Your task to perform on an android device: Go to Yahoo.com Image 0: 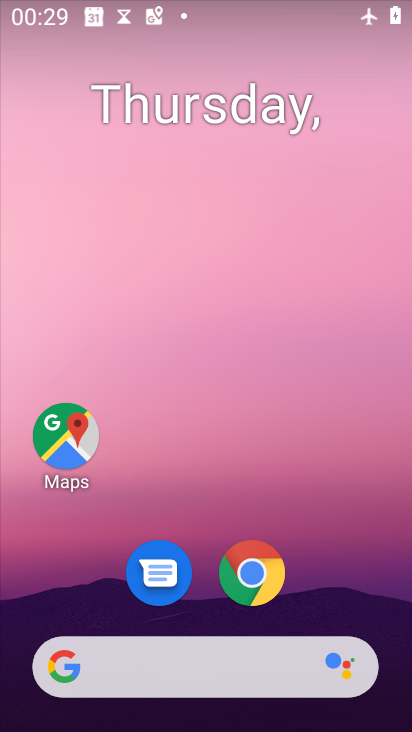
Step 0: click (241, 561)
Your task to perform on an android device: Go to Yahoo.com Image 1: 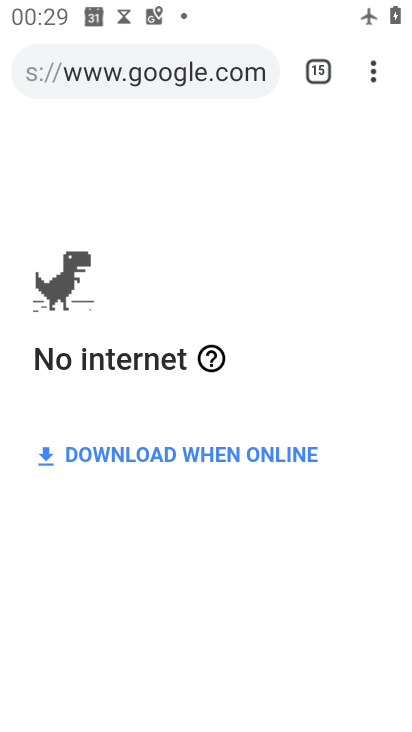
Step 1: click (372, 66)
Your task to perform on an android device: Go to Yahoo.com Image 2: 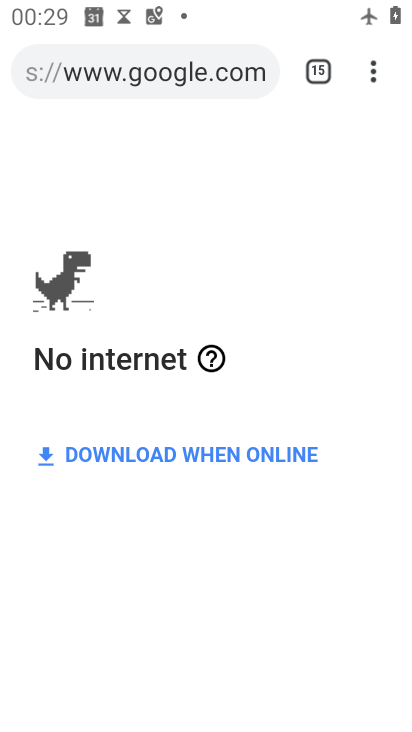
Step 2: click (367, 62)
Your task to perform on an android device: Go to Yahoo.com Image 3: 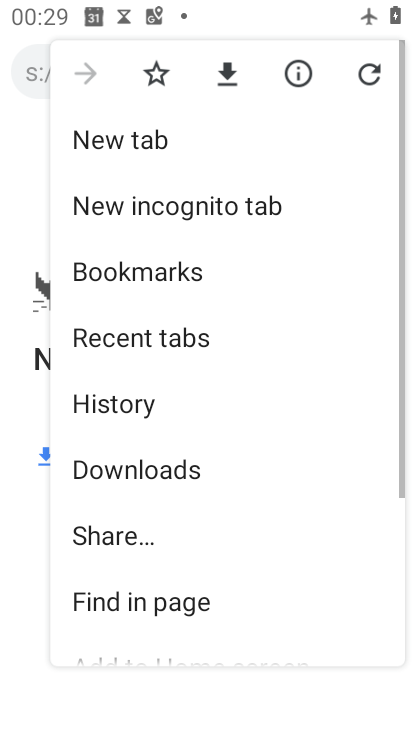
Step 3: click (87, 141)
Your task to perform on an android device: Go to Yahoo.com Image 4: 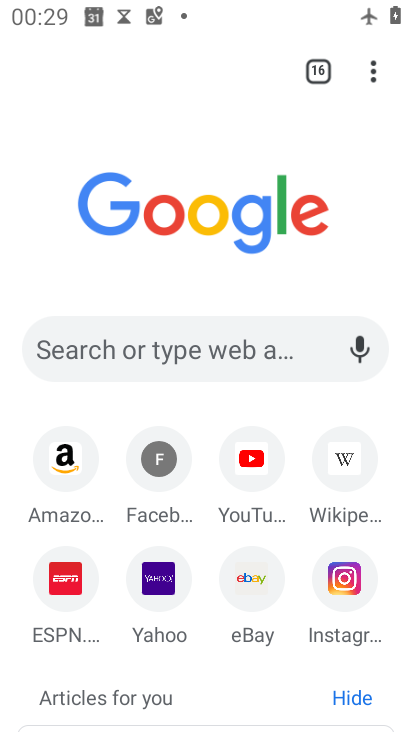
Step 4: click (148, 571)
Your task to perform on an android device: Go to Yahoo.com Image 5: 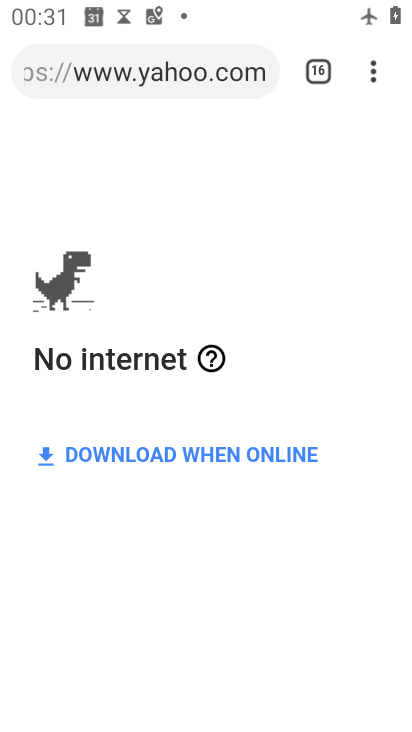
Step 5: task complete